Your task to perform on an android device: open app "Google Play Games" Image 0: 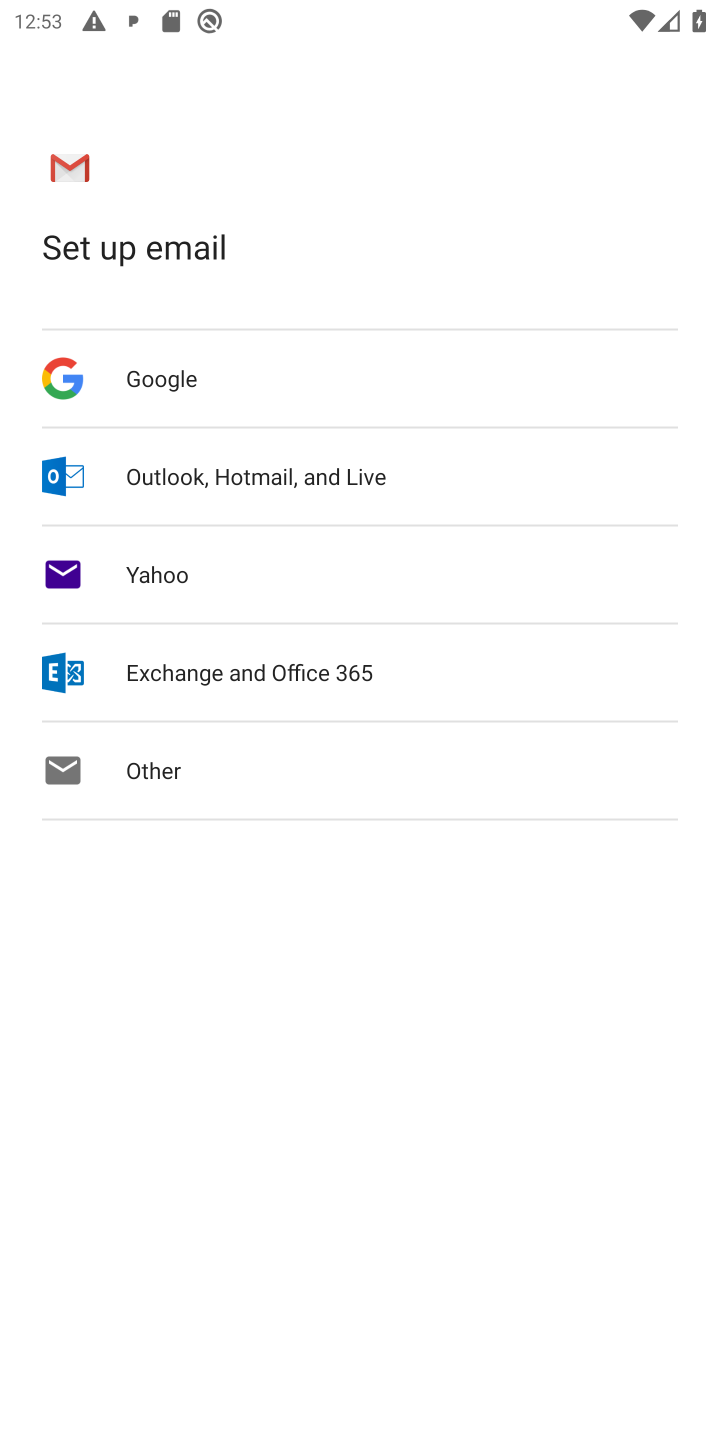
Step 0: press back button
Your task to perform on an android device: open app "Google Play Games" Image 1: 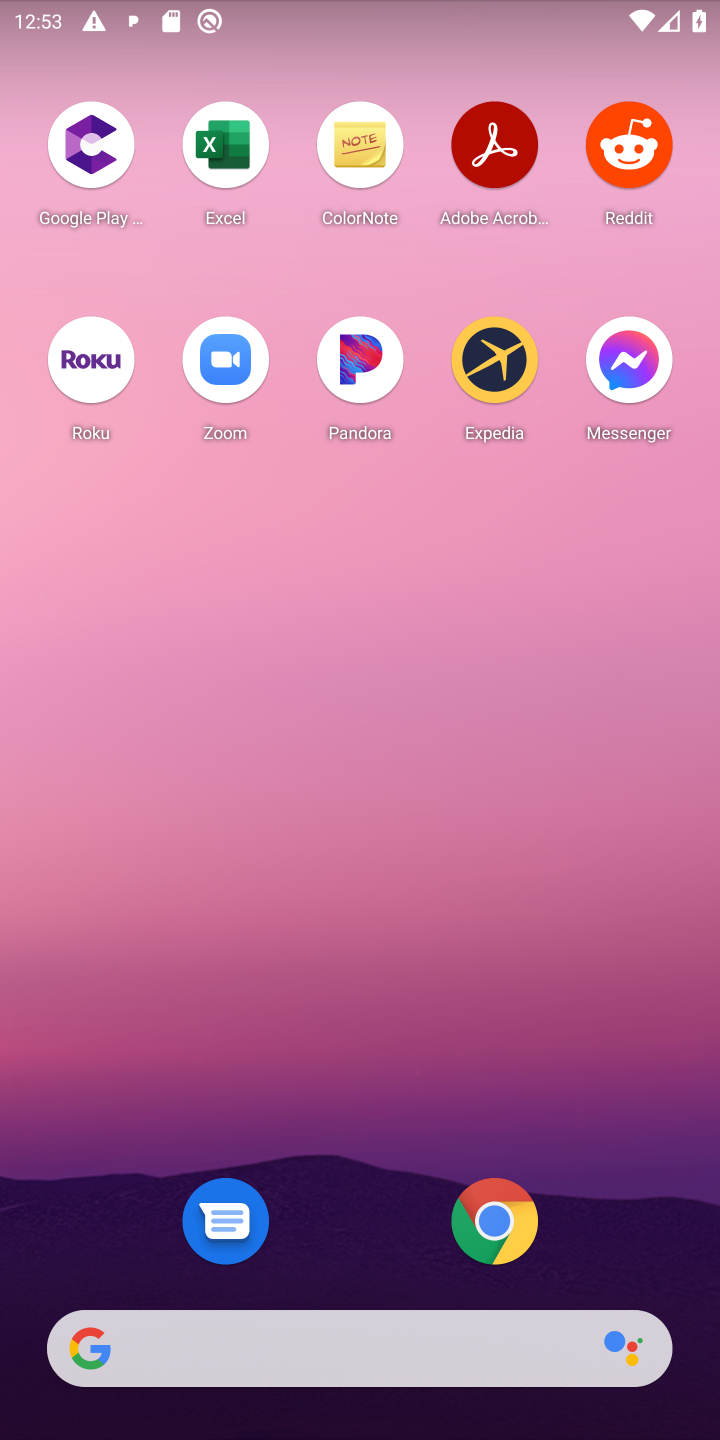
Step 1: drag from (366, 1134) to (452, 44)
Your task to perform on an android device: open app "Google Play Games" Image 2: 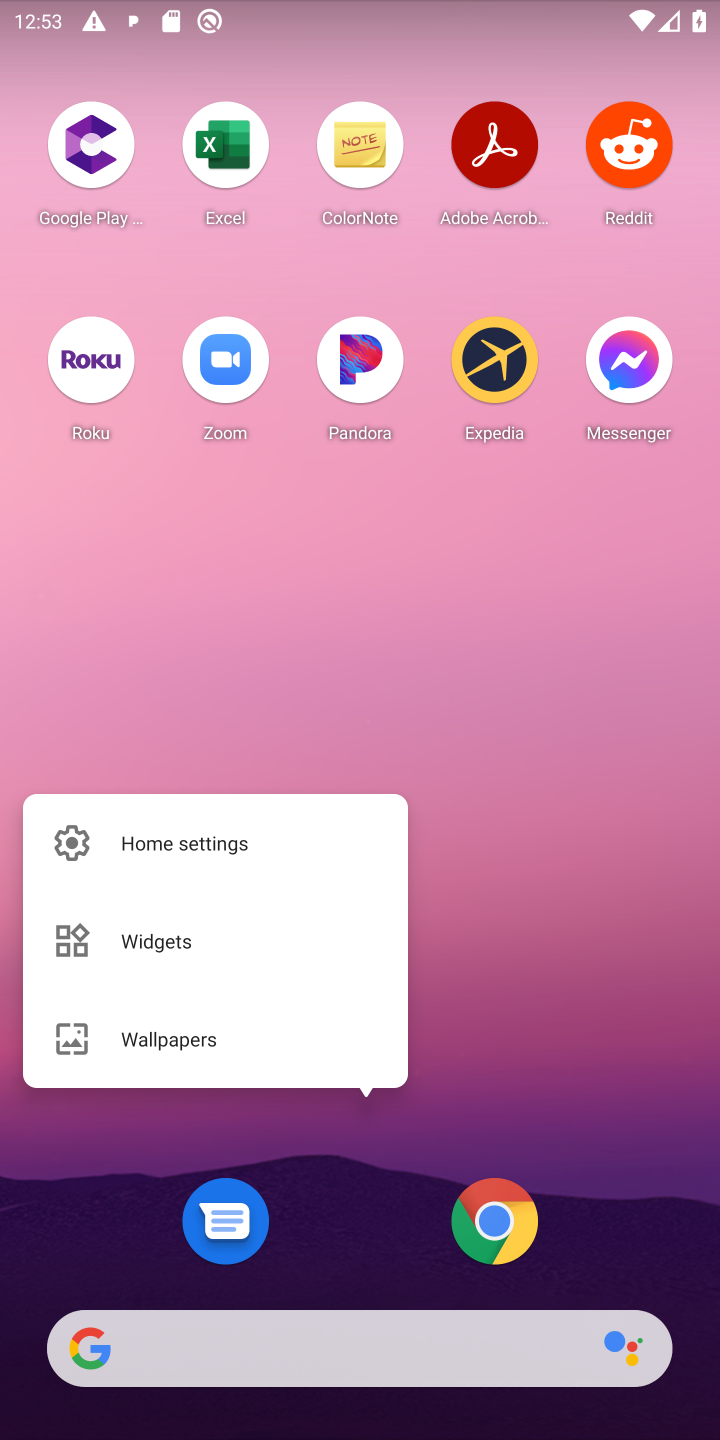
Step 2: click (515, 944)
Your task to perform on an android device: open app "Google Play Games" Image 3: 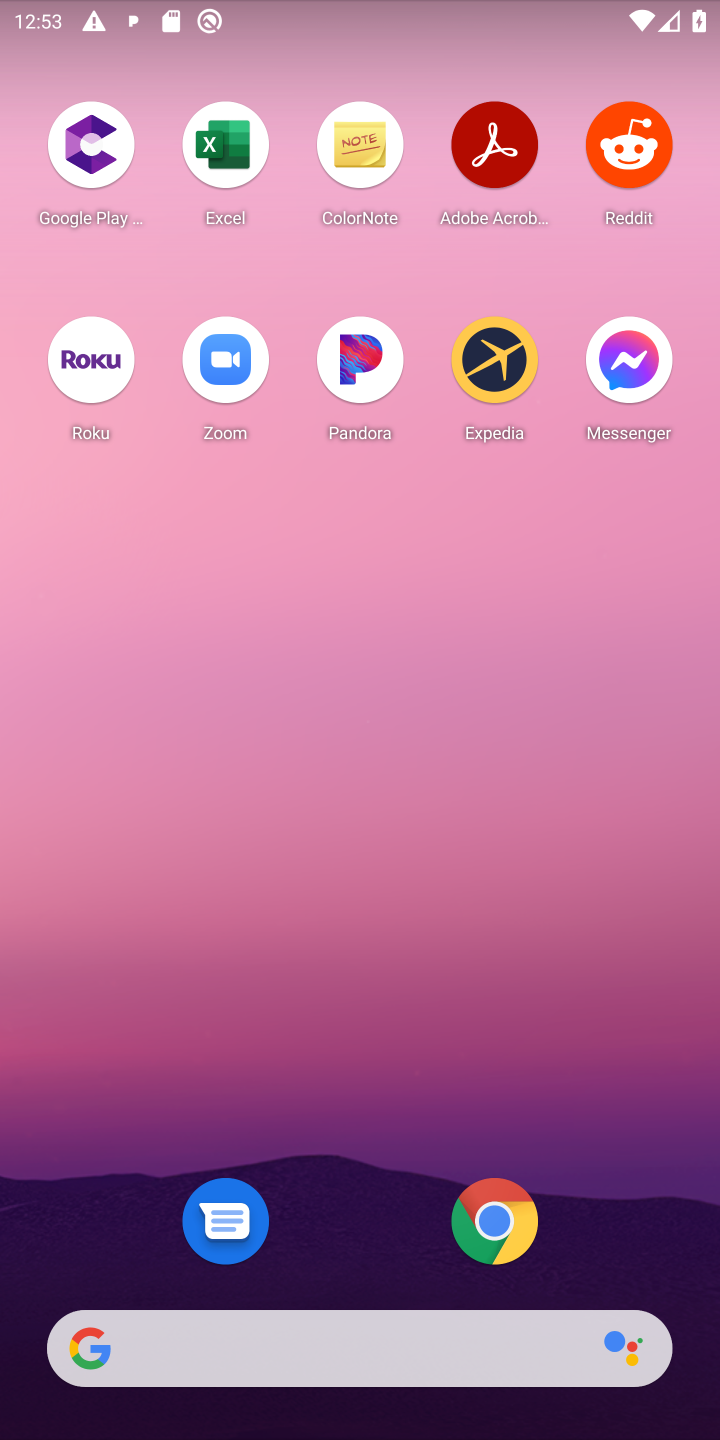
Step 3: drag from (366, 977) to (384, 80)
Your task to perform on an android device: open app "Google Play Games" Image 4: 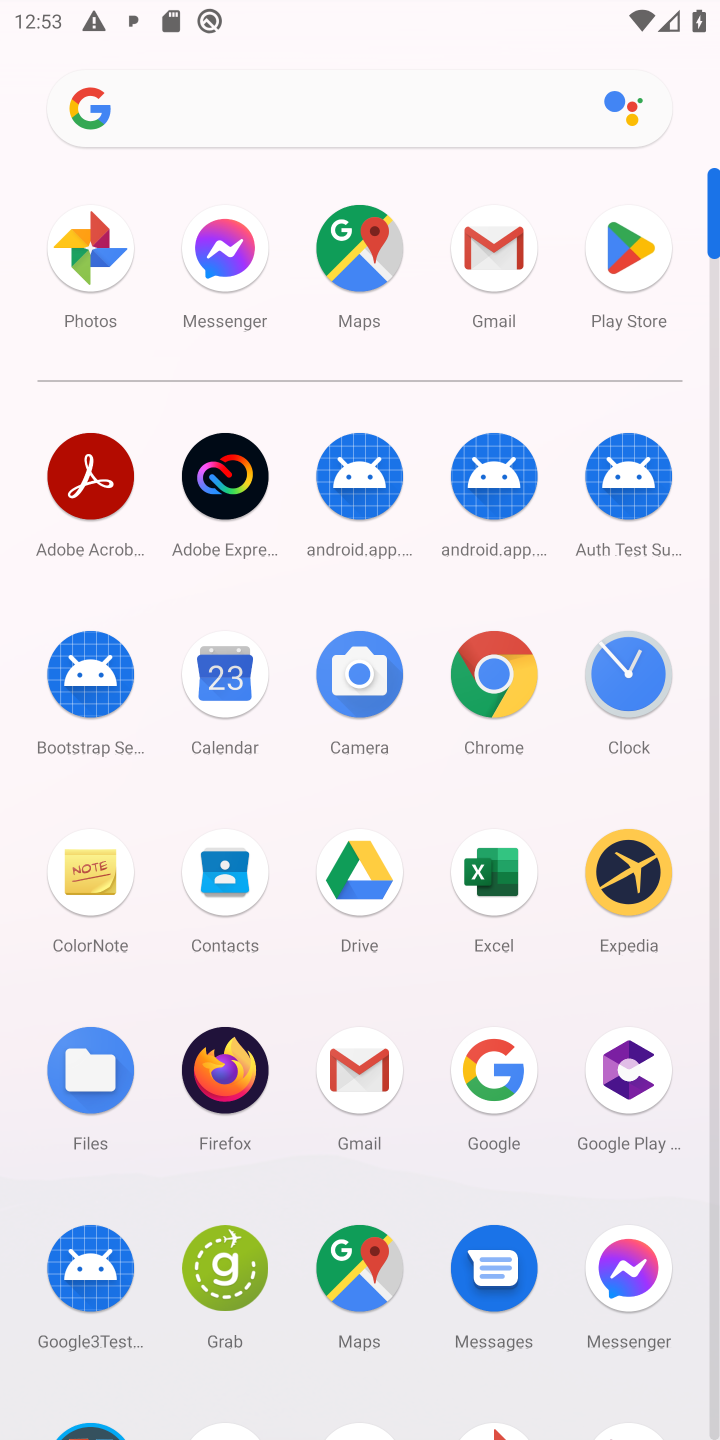
Step 4: click (634, 265)
Your task to perform on an android device: open app "Google Play Games" Image 5: 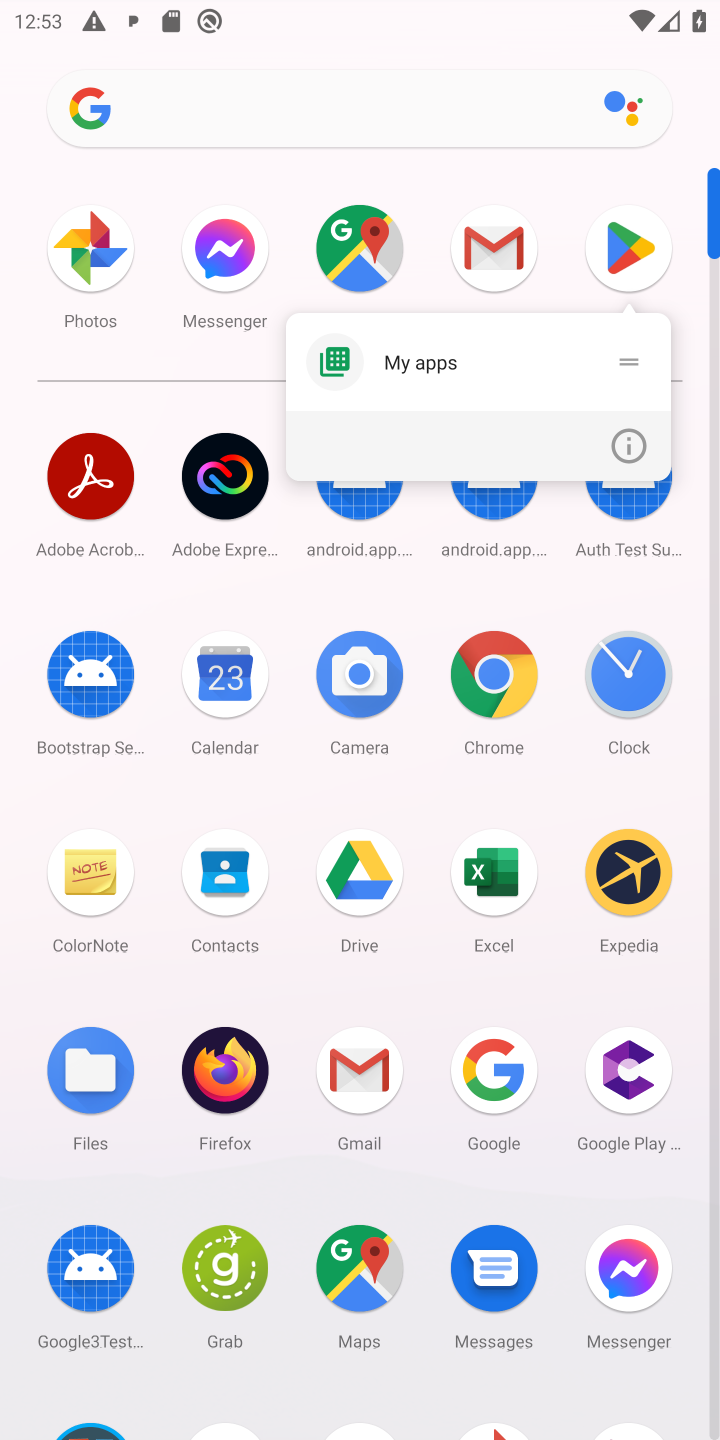
Step 5: click (628, 238)
Your task to perform on an android device: open app "Google Play Games" Image 6: 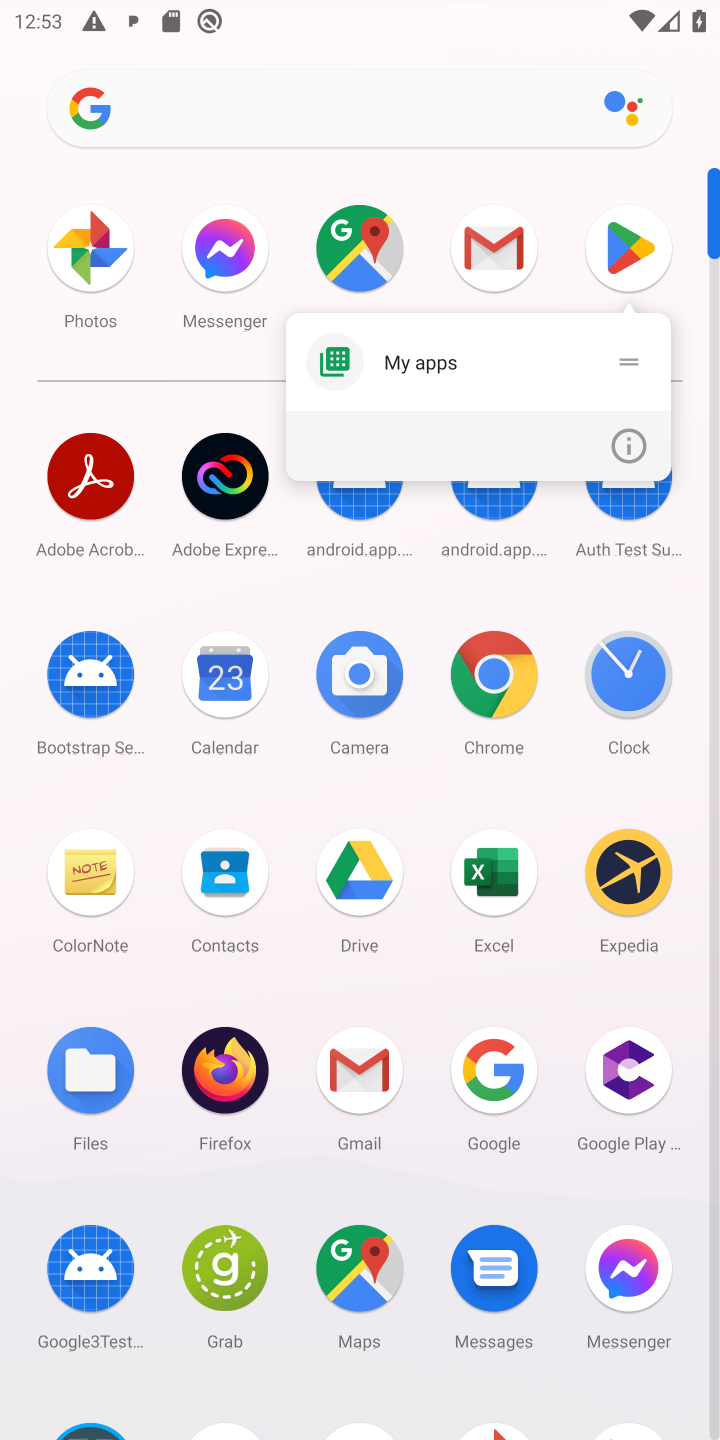
Step 6: click (628, 242)
Your task to perform on an android device: open app "Google Play Games" Image 7: 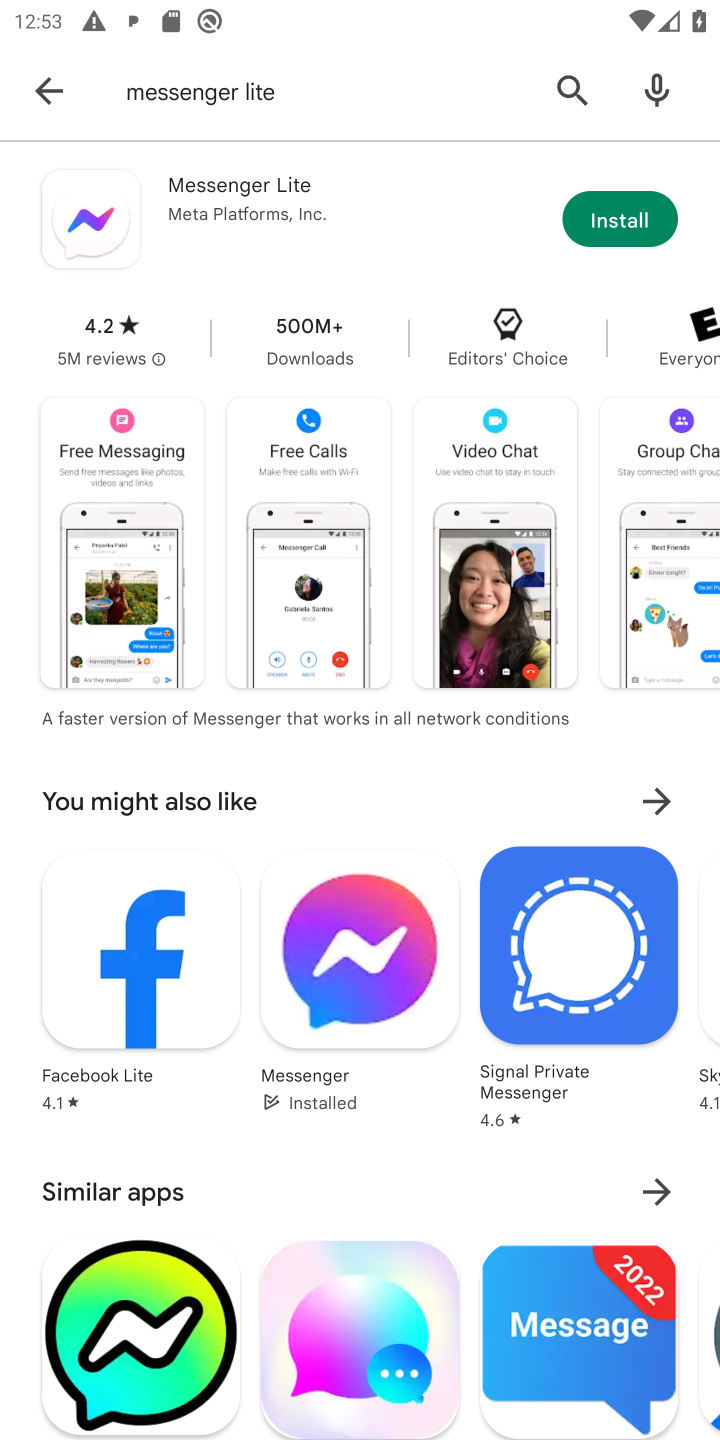
Step 7: click (558, 83)
Your task to perform on an android device: open app "Google Play Games" Image 8: 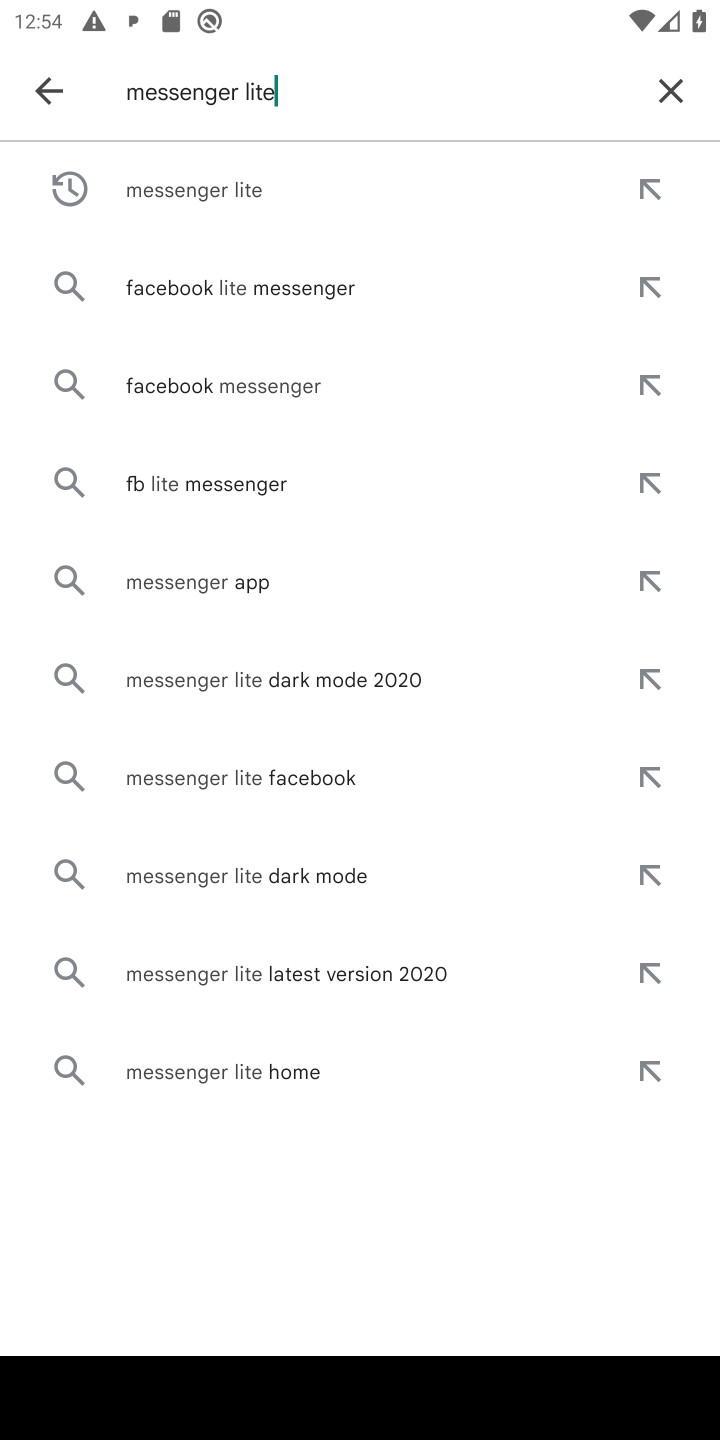
Step 8: click (669, 91)
Your task to perform on an android device: open app "Google Play Games" Image 9: 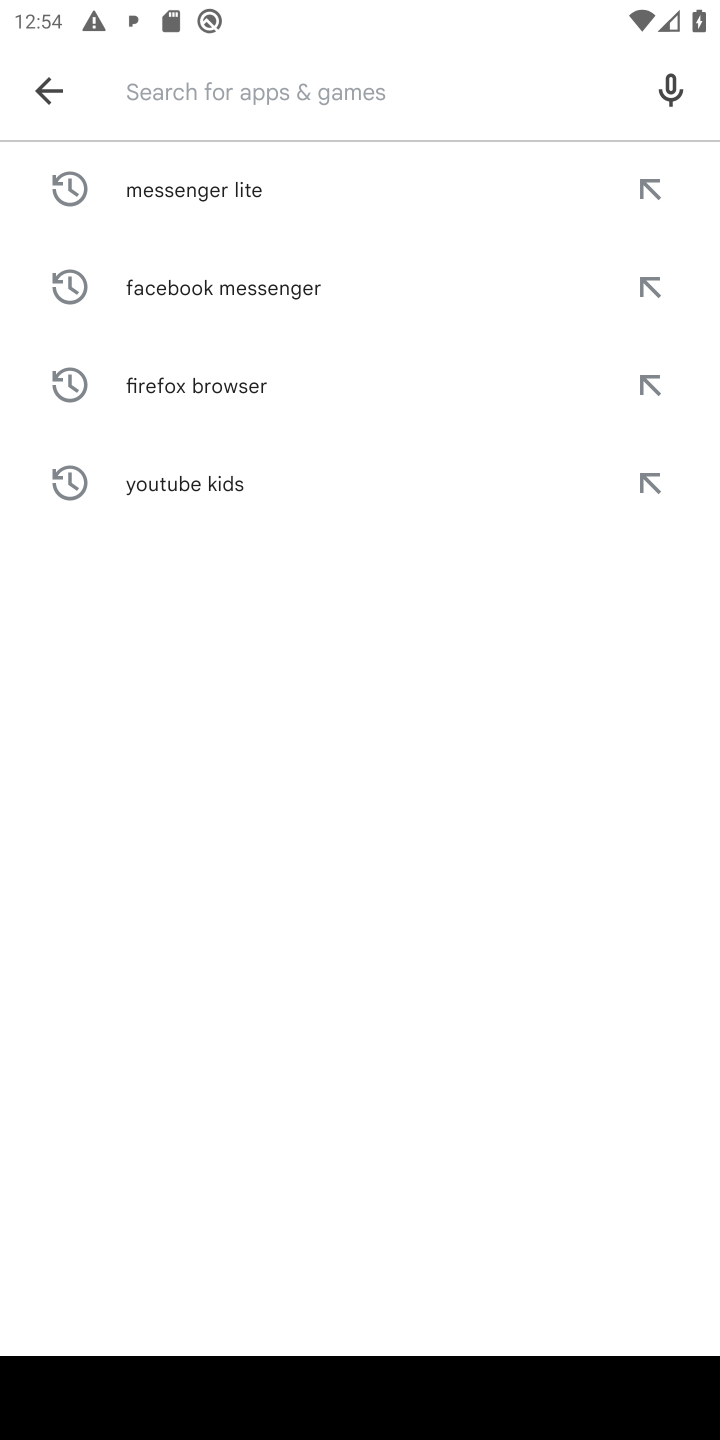
Step 9: click (260, 90)
Your task to perform on an android device: open app "Google Play Games" Image 10: 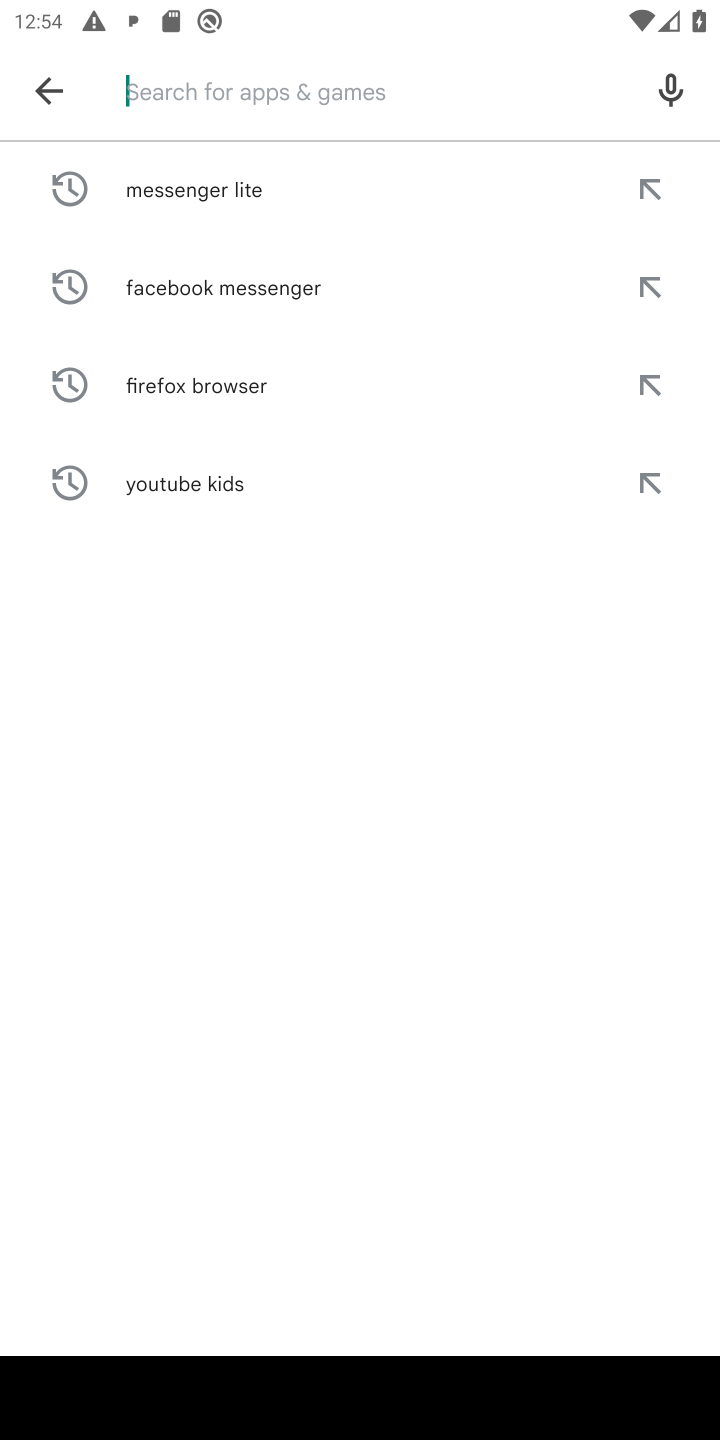
Step 10: type "Google Play Games"
Your task to perform on an android device: open app "Google Play Games" Image 11: 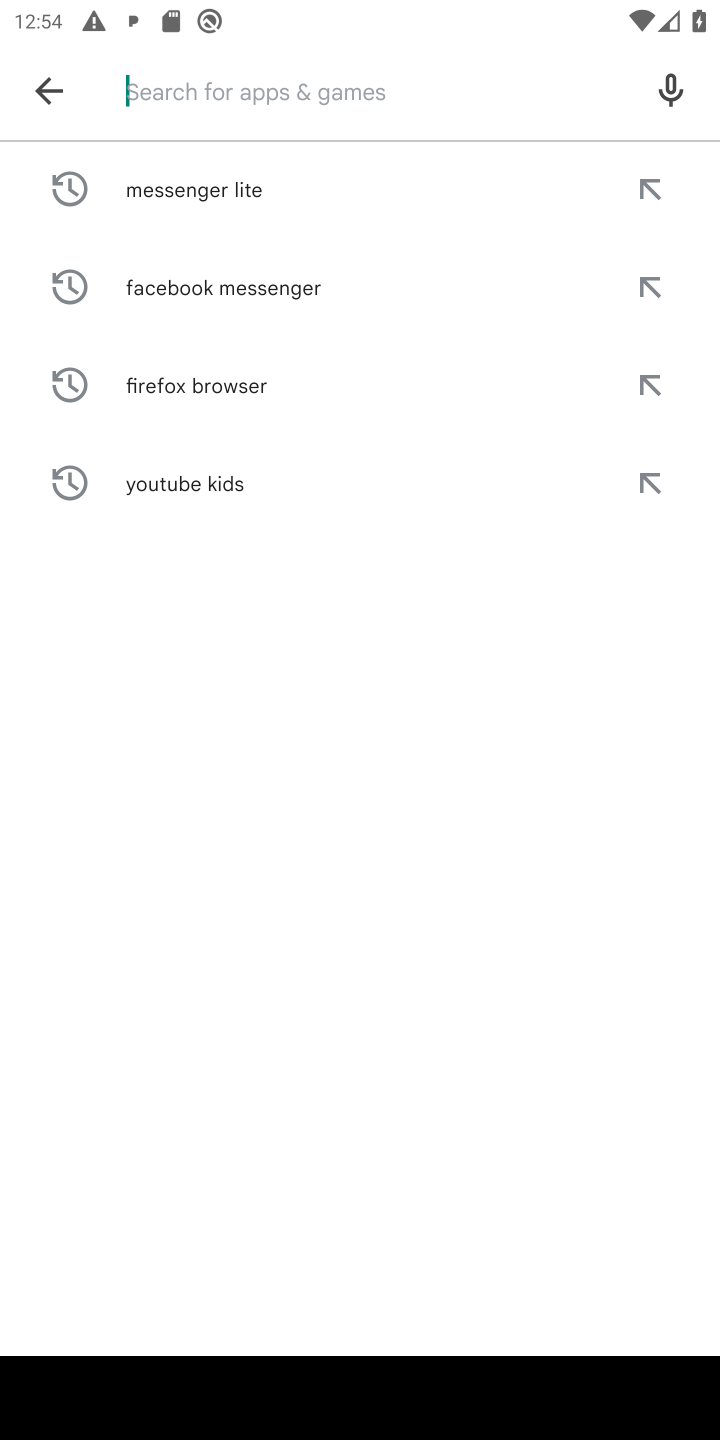
Step 11: click (379, 918)
Your task to perform on an android device: open app "Google Play Games" Image 12: 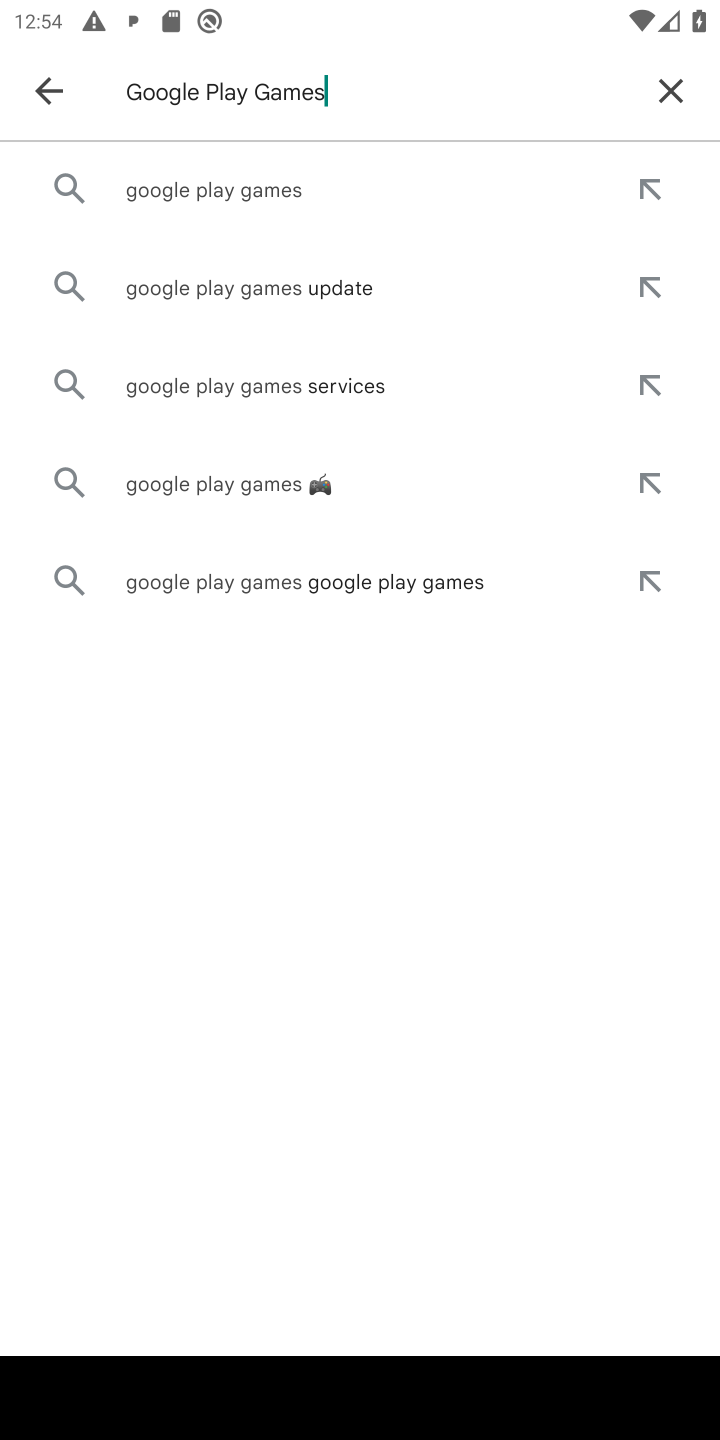
Step 12: click (306, 191)
Your task to perform on an android device: open app "Google Play Games" Image 13: 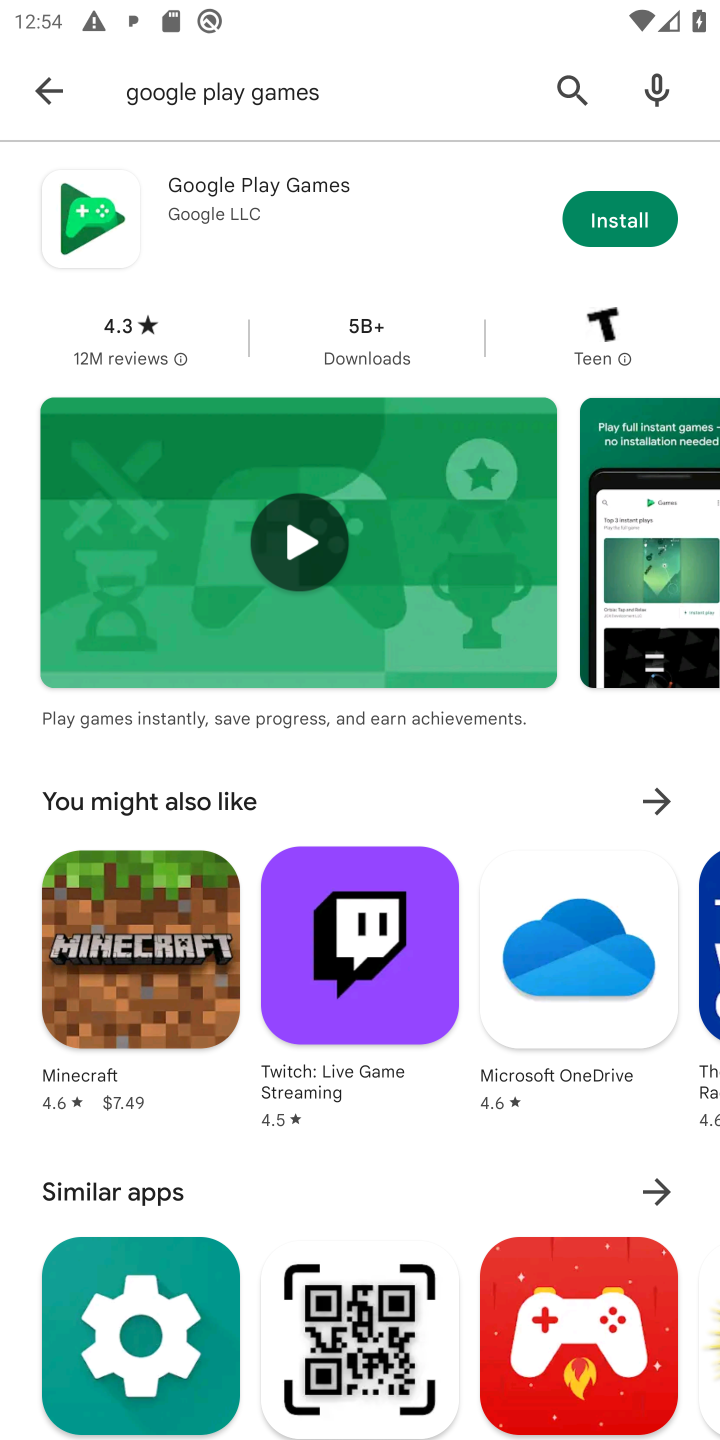
Step 13: task complete